Your task to perform on an android device: Clear the cart on target. Search for "energizer triple a" on target, select the first entry, and add it to the cart. Image 0: 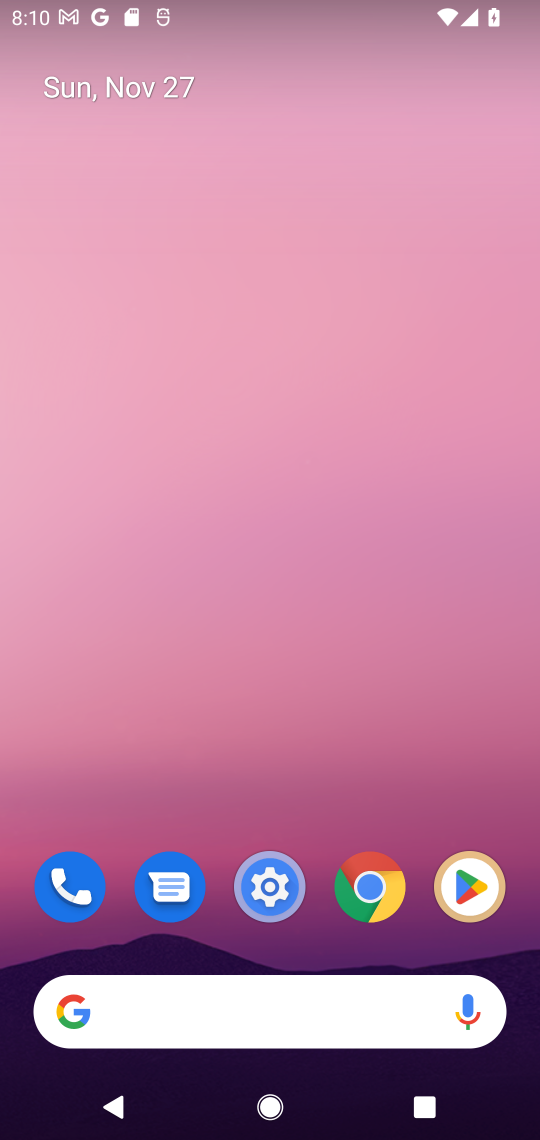
Step 0: click (168, 754)
Your task to perform on an android device: Clear the cart on target. Search for "energizer triple a" on target, select the first entry, and add it to the cart. Image 1: 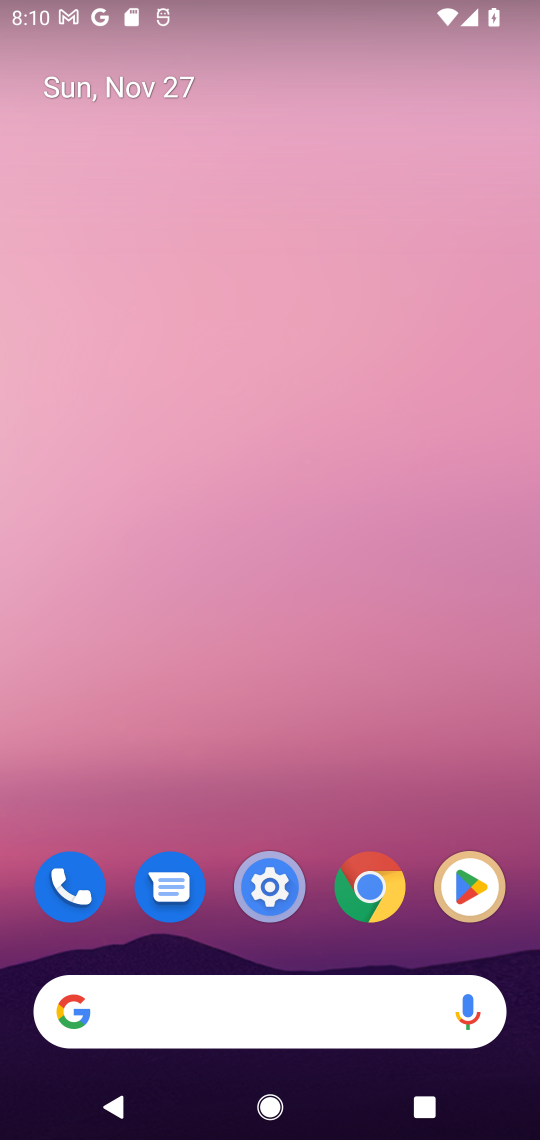
Step 1: click (168, 754)
Your task to perform on an android device: Clear the cart on target. Search for "energizer triple a" on target, select the first entry, and add it to the cart. Image 2: 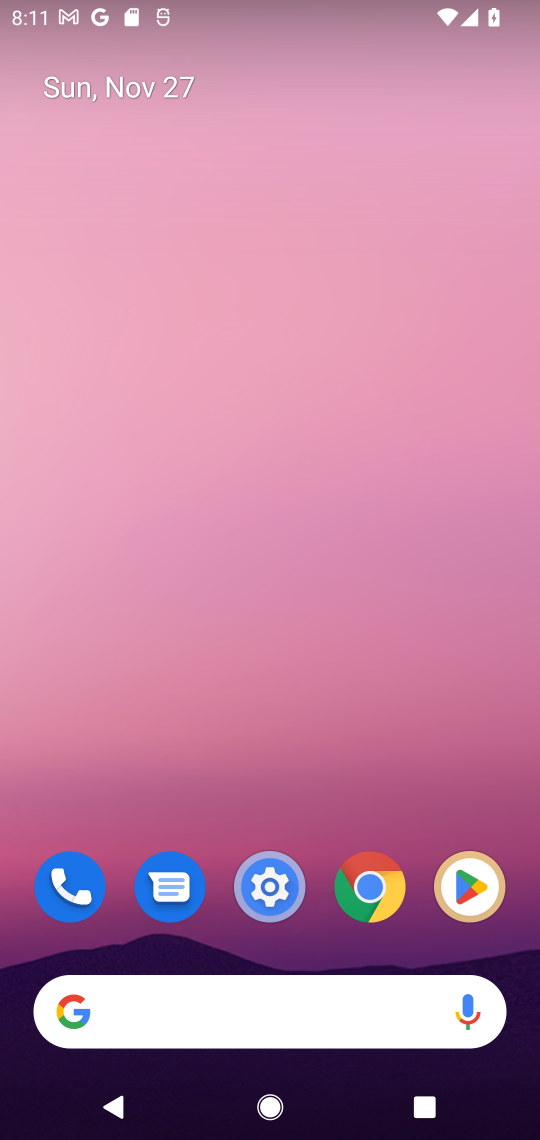
Step 2: click (277, 1021)
Your task to perform on an android device: Clear the cart on target. Search for "energizer triple a" on target, select the first entry, and add it to the cart. Image 3: 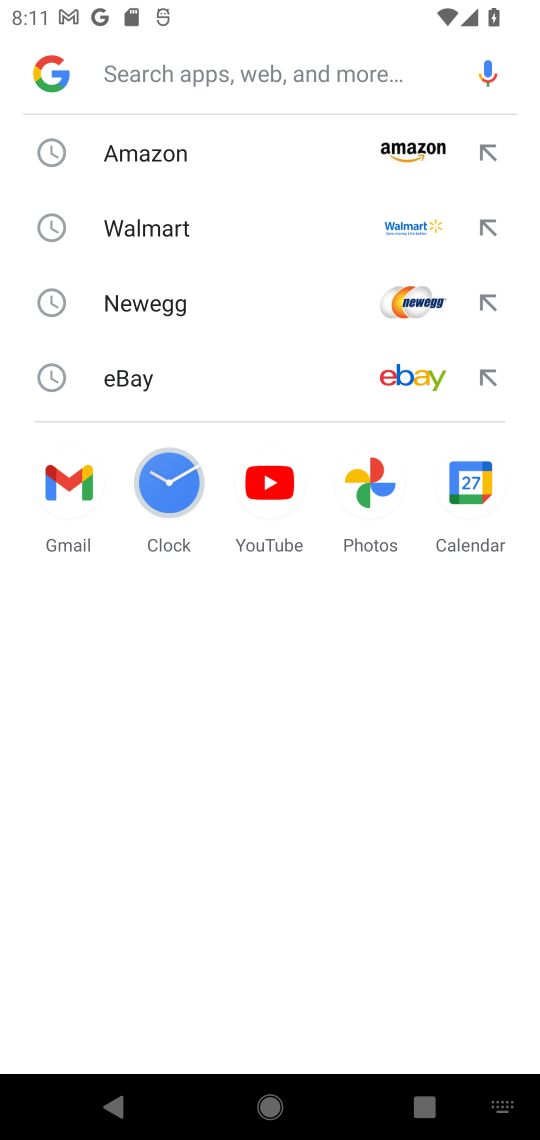
Step 3: type "target"
Your task to perform on an android device: Clear the cart on target. Search for "energizer triple a" on target, select the first entry, and add it to the cart. Image 4: 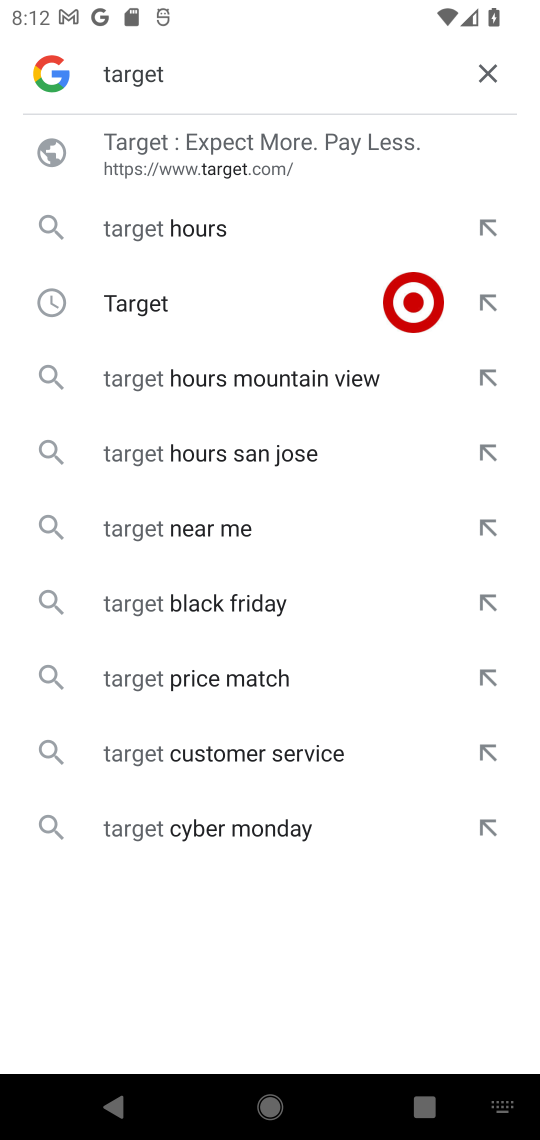
Step 4: click (283, 136)
Your task to perform on an android device: Clear the cart on target. Search for "energizer triple a" on target, select the first entry, and add it to the cart. Image 5: 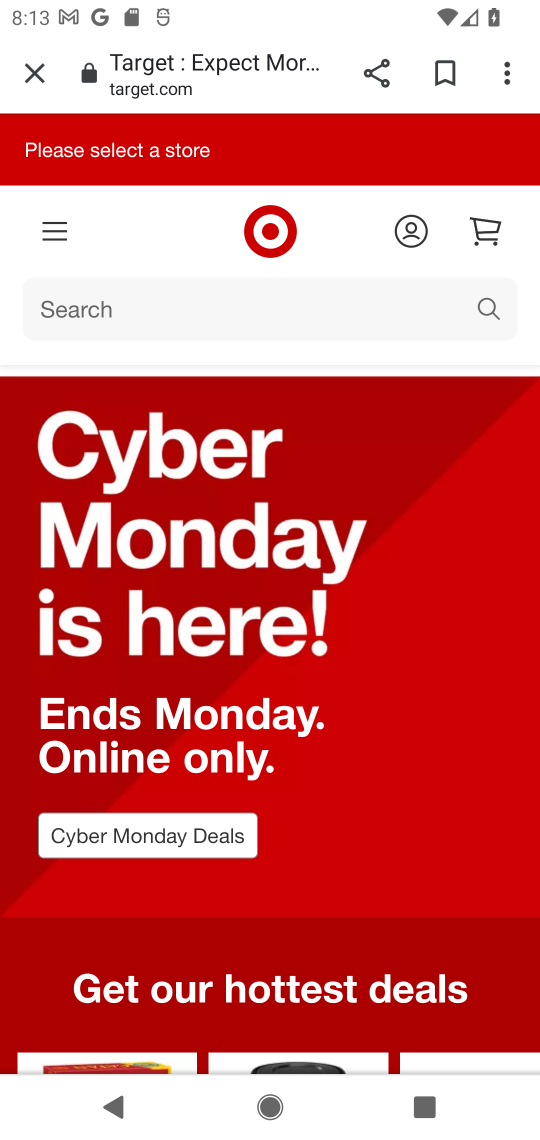
Step 5: click (74, 287)
Your task to perform on an android device: Clear the cart on target. Search for "energizer triple a" on target, select the first entry, and add it to the cart. Image 6: 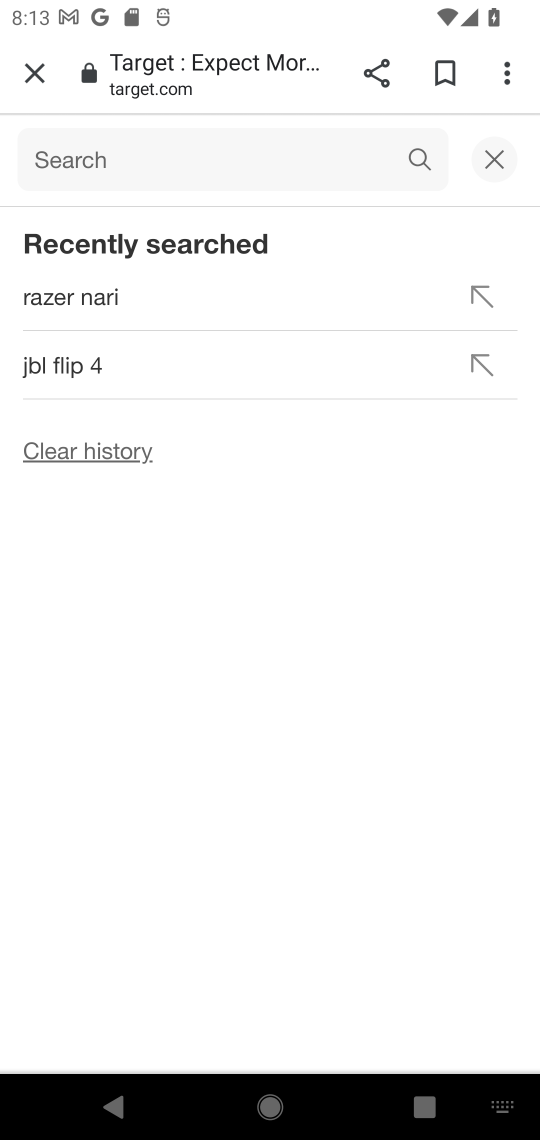
Step 6: type "energizer triple"
Your task to perform on an android device: Clear the cart on target. Search for "energizer triple a" on target, select the first entry, and add it to the cart. Image 7: 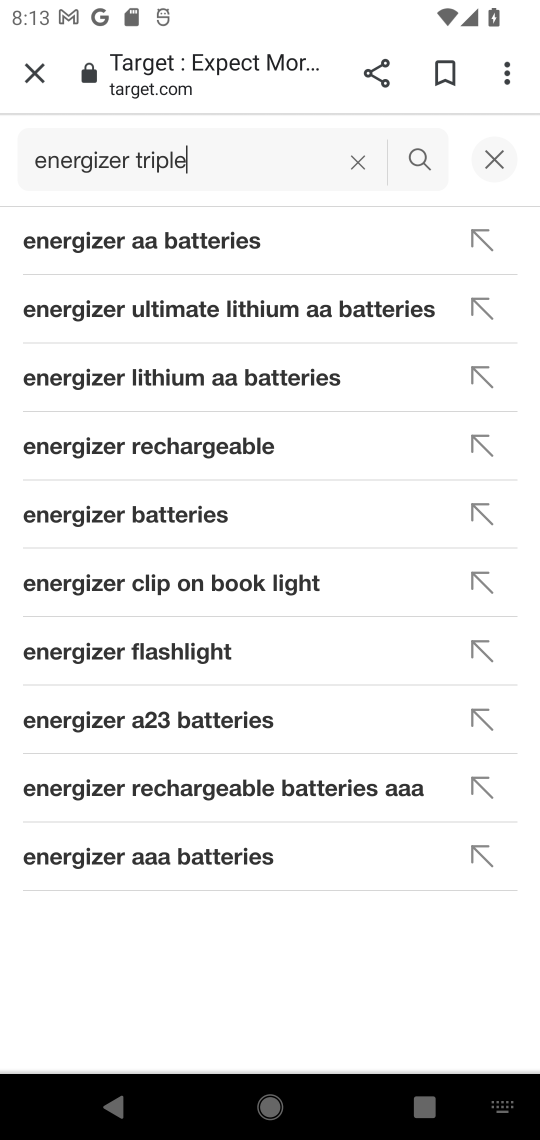
Step 7: click (90, 269)
Your task to perform on an android device: Clear the cart on target. Search for "energizer triple a" on target, select the first entry, and add it to the cart. Image 8: 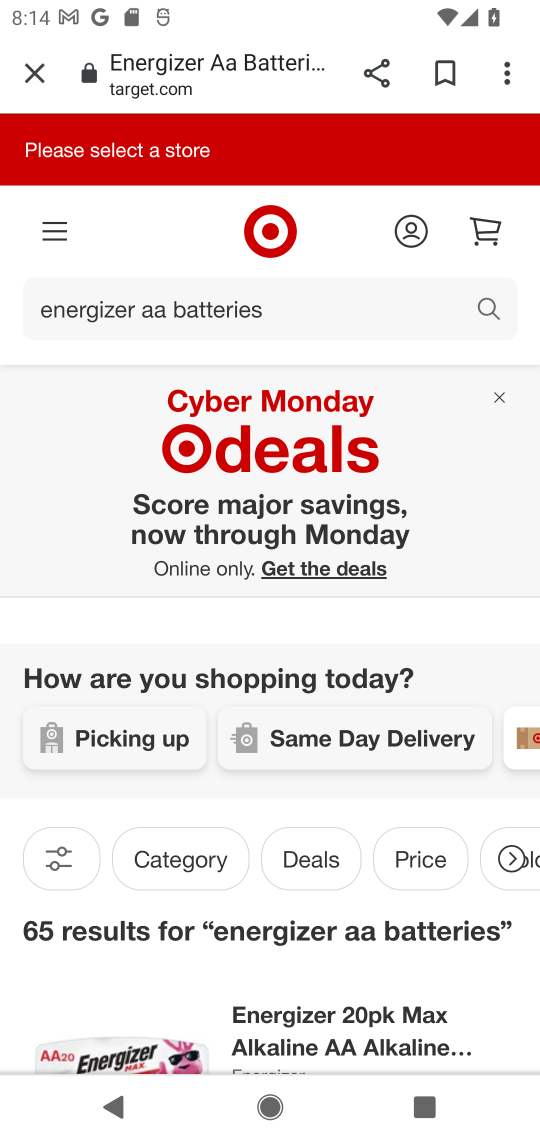
Step 8: click (245, 336)
Your task to perform on an android device: Clear the cart on target. Search for "energizer triple a" on target, select the first entry, and add it to the cart. Image 9: 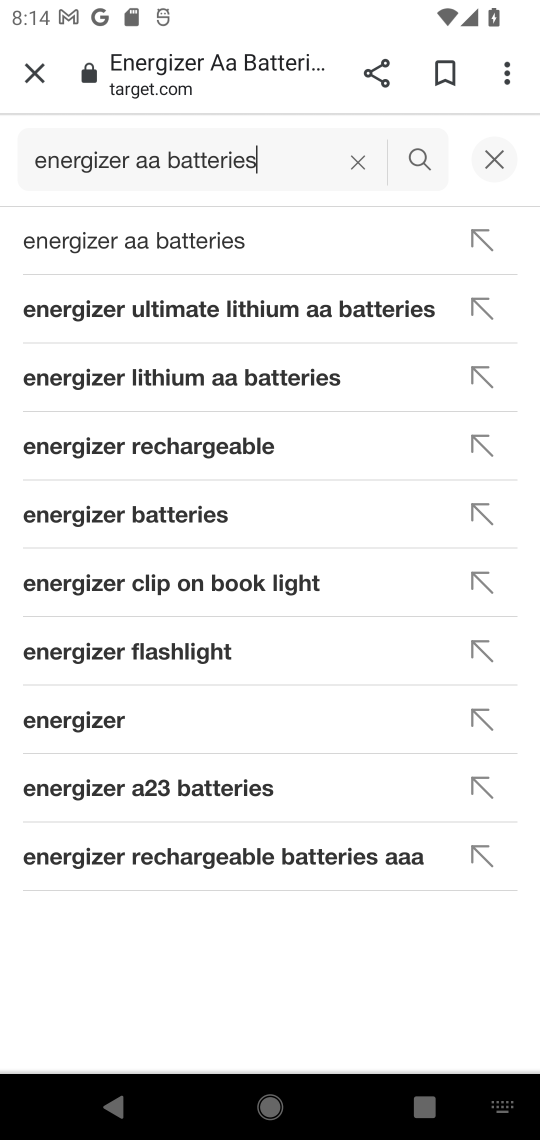
Step 9: click (226, 254)
Your task to perform on an android device: Clear the cart on target. Search for "energizer triple a" on target, select the first entry, and add it to the cart. Image 10: 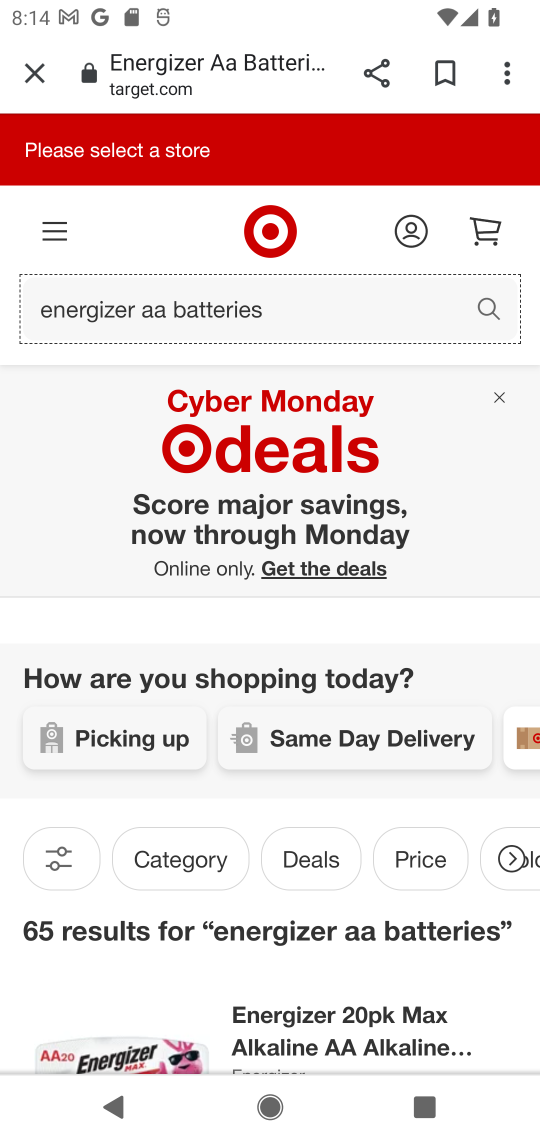
Step 10: task complete